Your task to perform on an android device: Check my email Image 0: 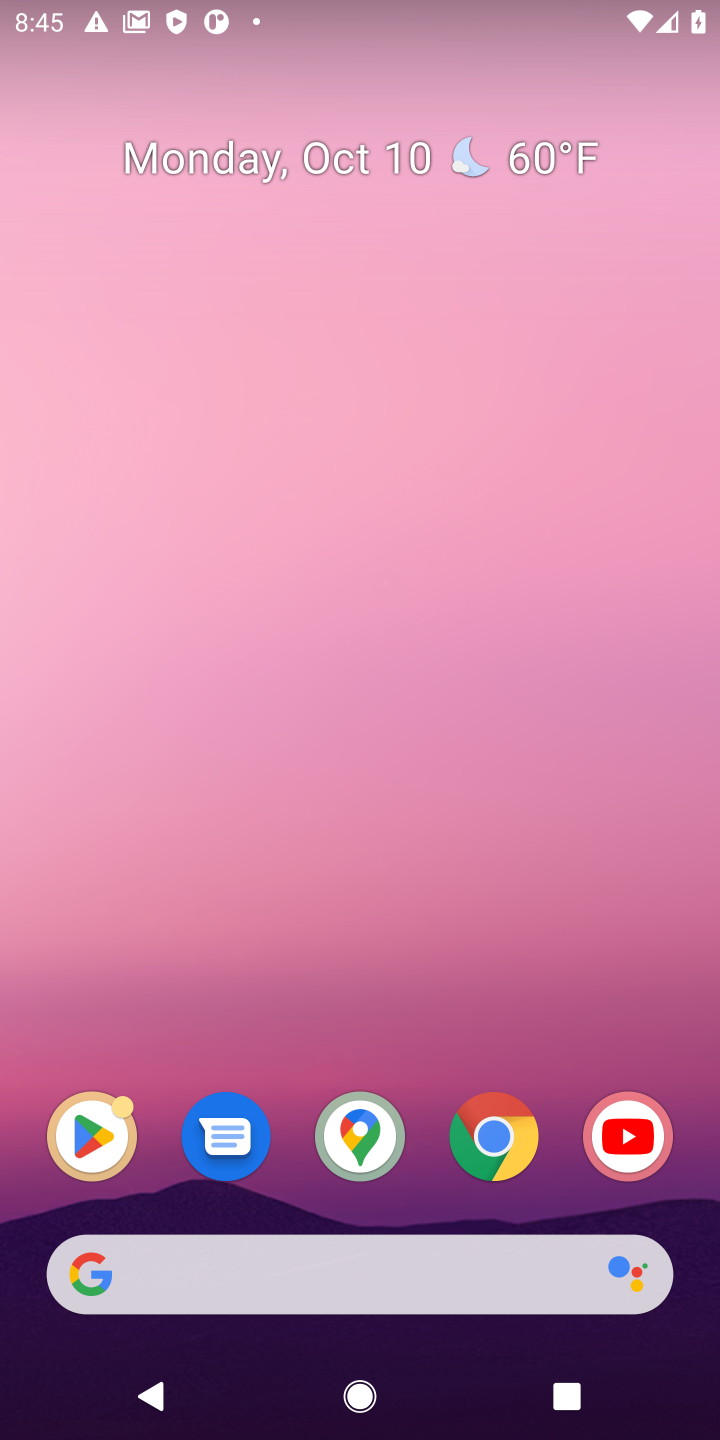
Step 0: drag from (427, 1019) to (424, 338)
Your task to perform on an android device: Check my email Image 1: 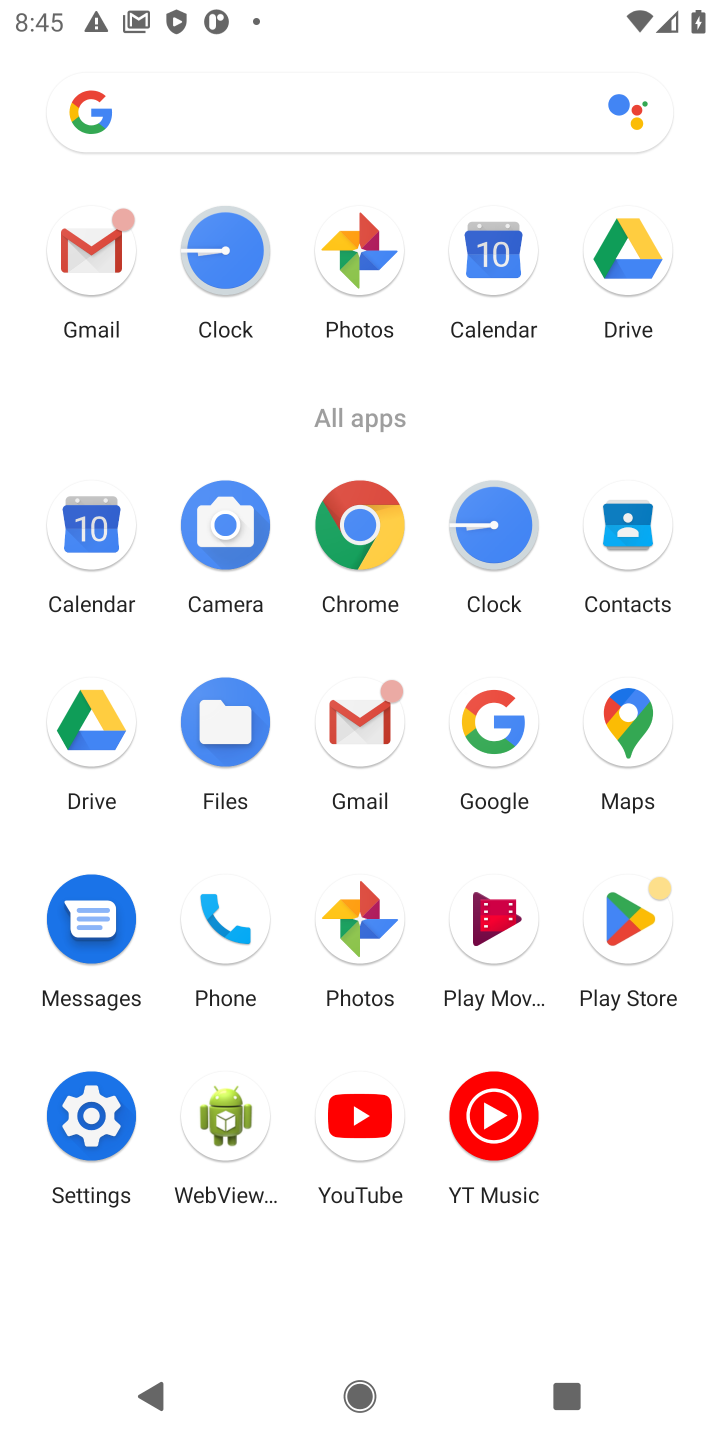
Step 1: click (77, 242)
Your task to perform on an android device: Check my email Image 2: 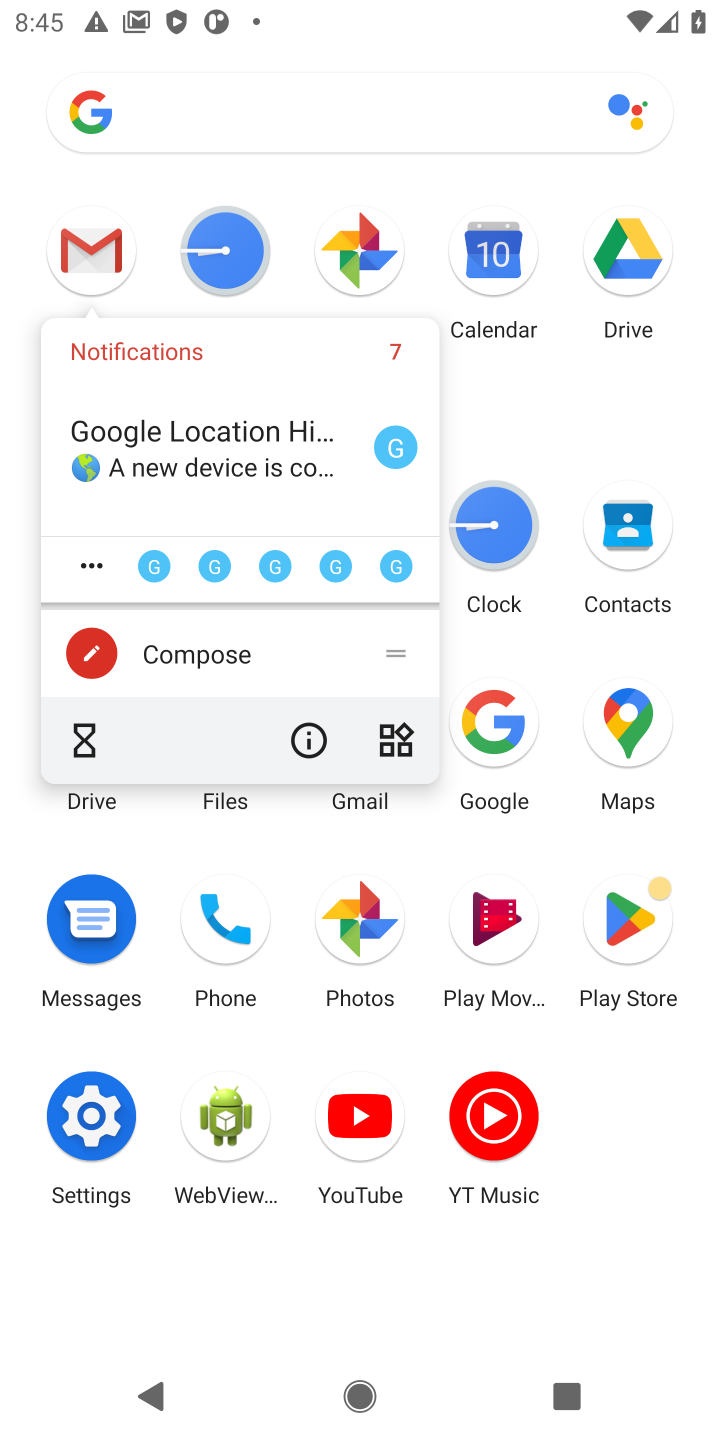
Step 2: click (89, 248)
Your task to perform on an android device: Check my email Image 3: 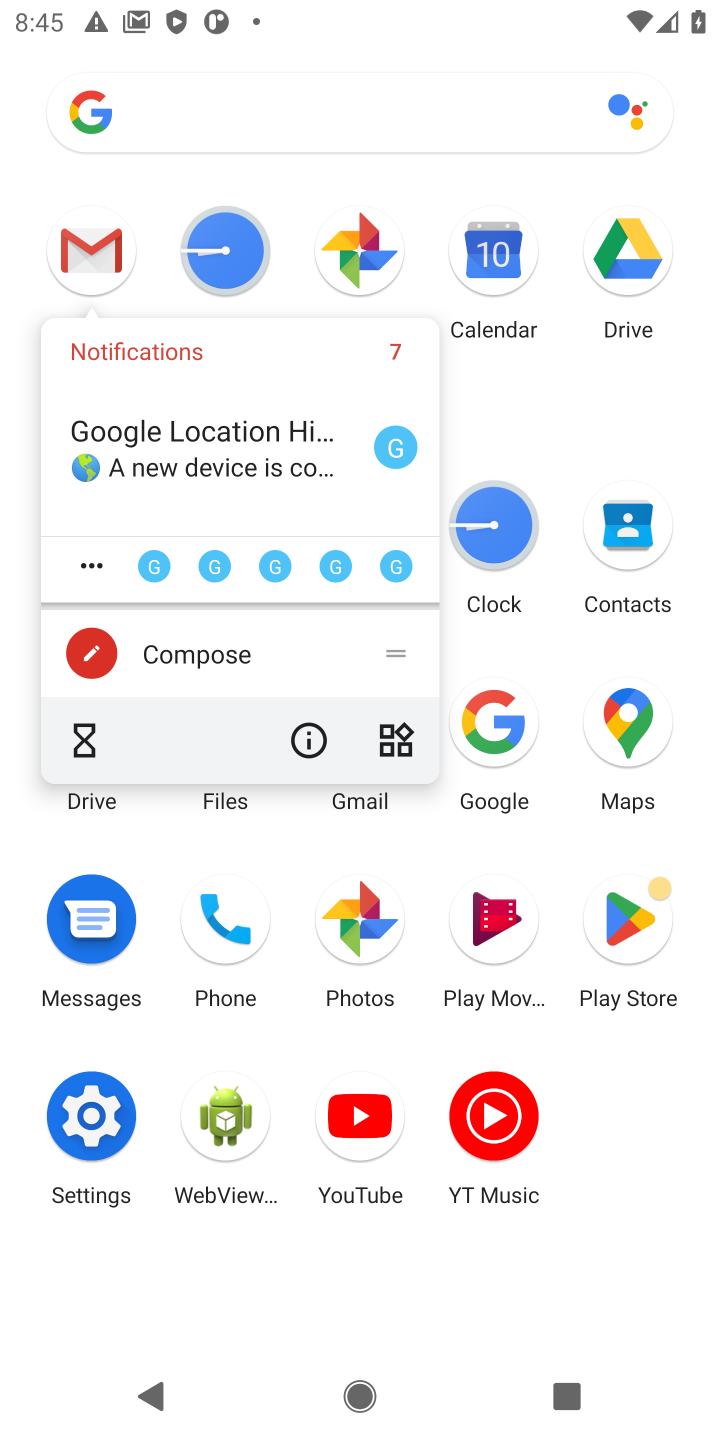
Step 3: click (81, 271)
Your task to perform on an android device: Check my email Image 4: 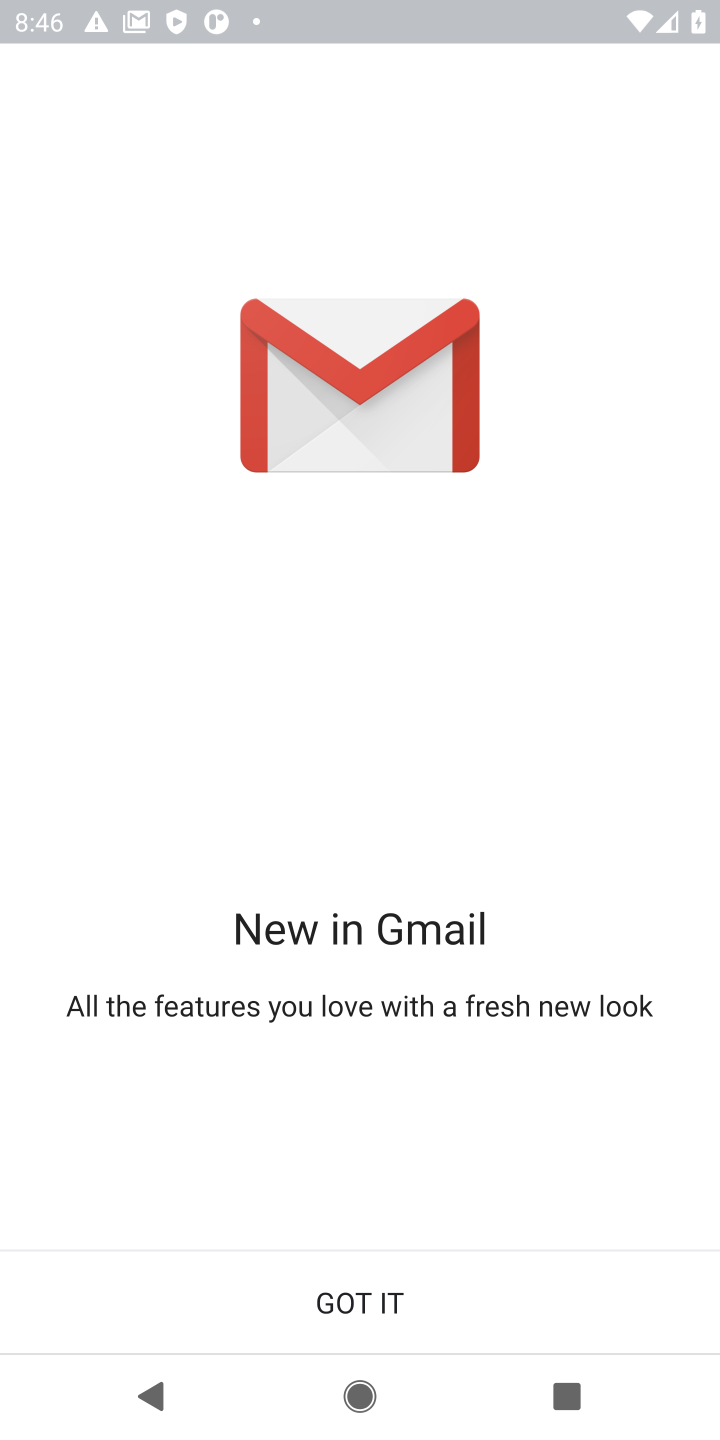
Step 4: click (340, 1316)
Your task to perform on an android device: Check my email Image 5: 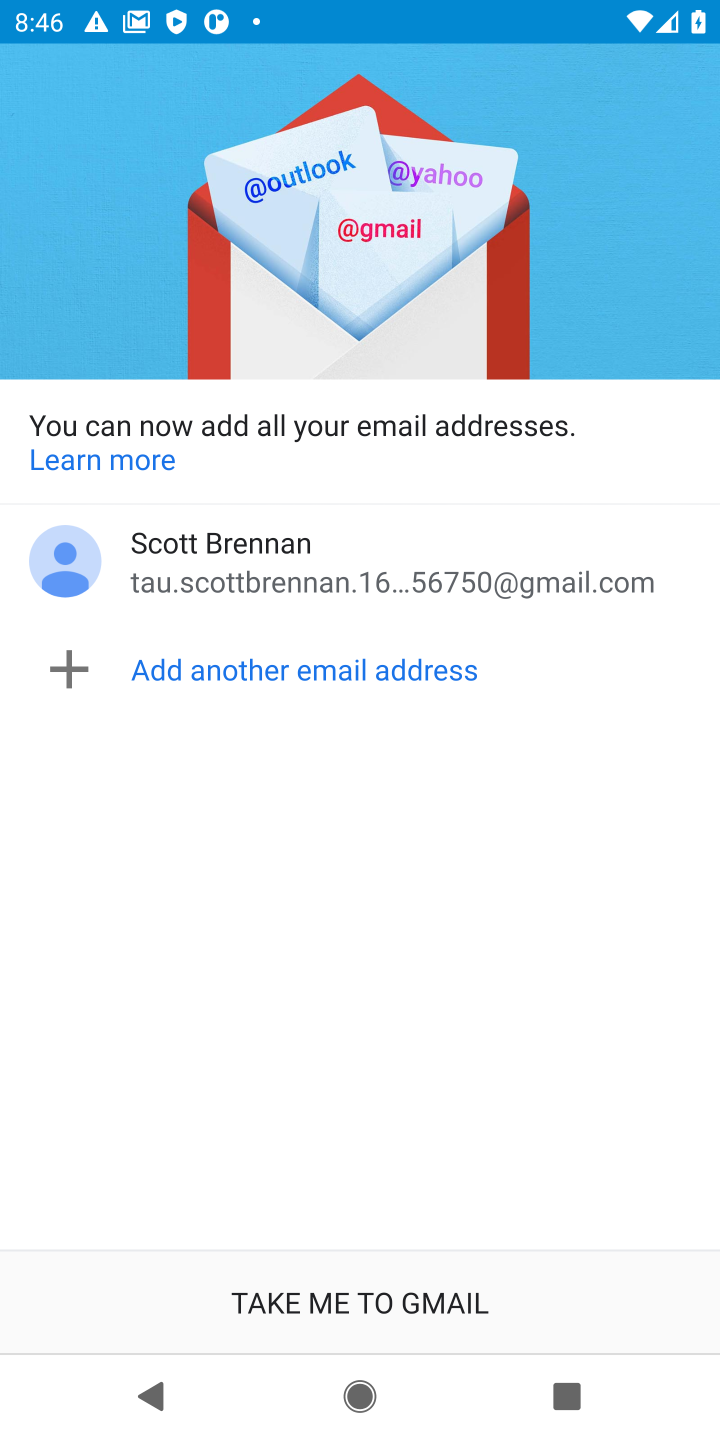
Step 5: click (305, 1285)
Your task to perform on an android device: Check my email Image 6: 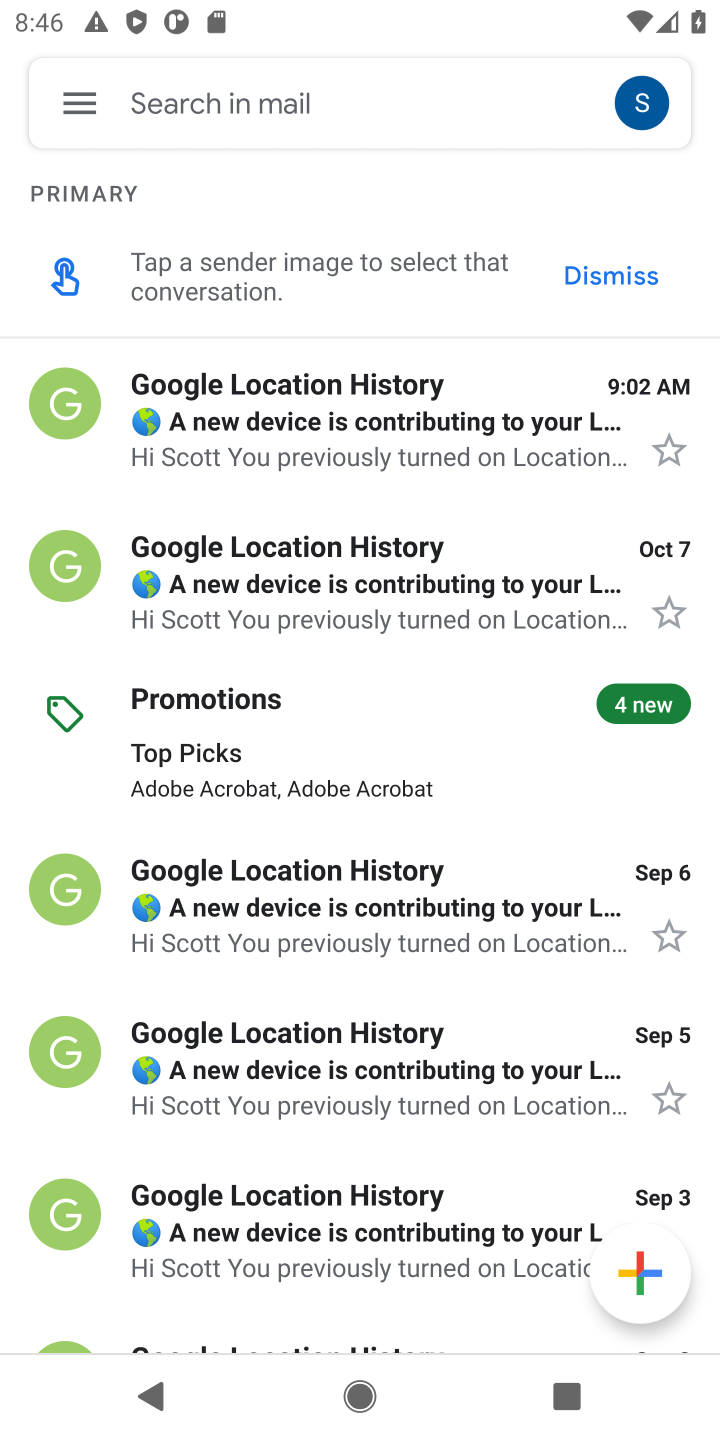
Step 6: task complete